Your task to perform on an android device: turn smart compose on in the gmail app Image 0: 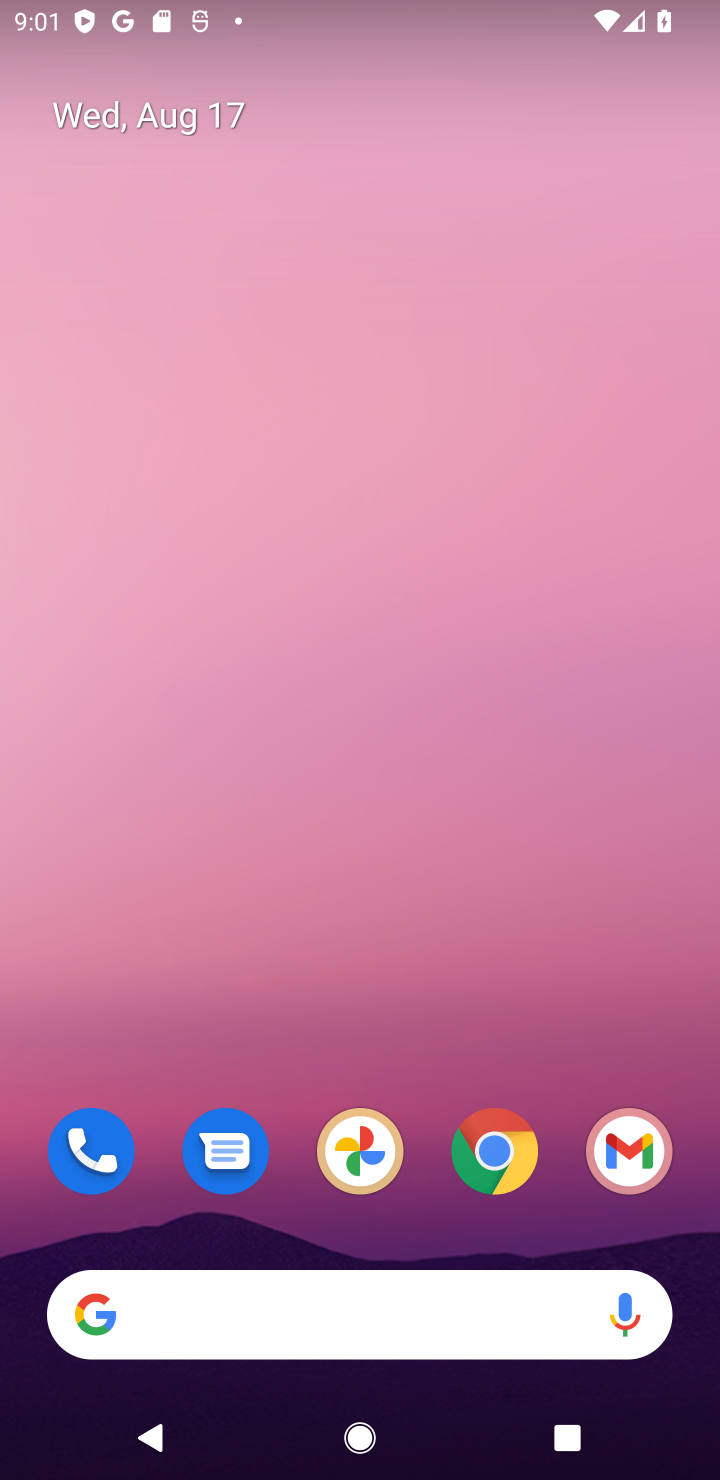
Step 0: drag from (368, 1037) to (416, 45)
Your task to perform on an android device: turn smart compose on in the gmail app Image 1: 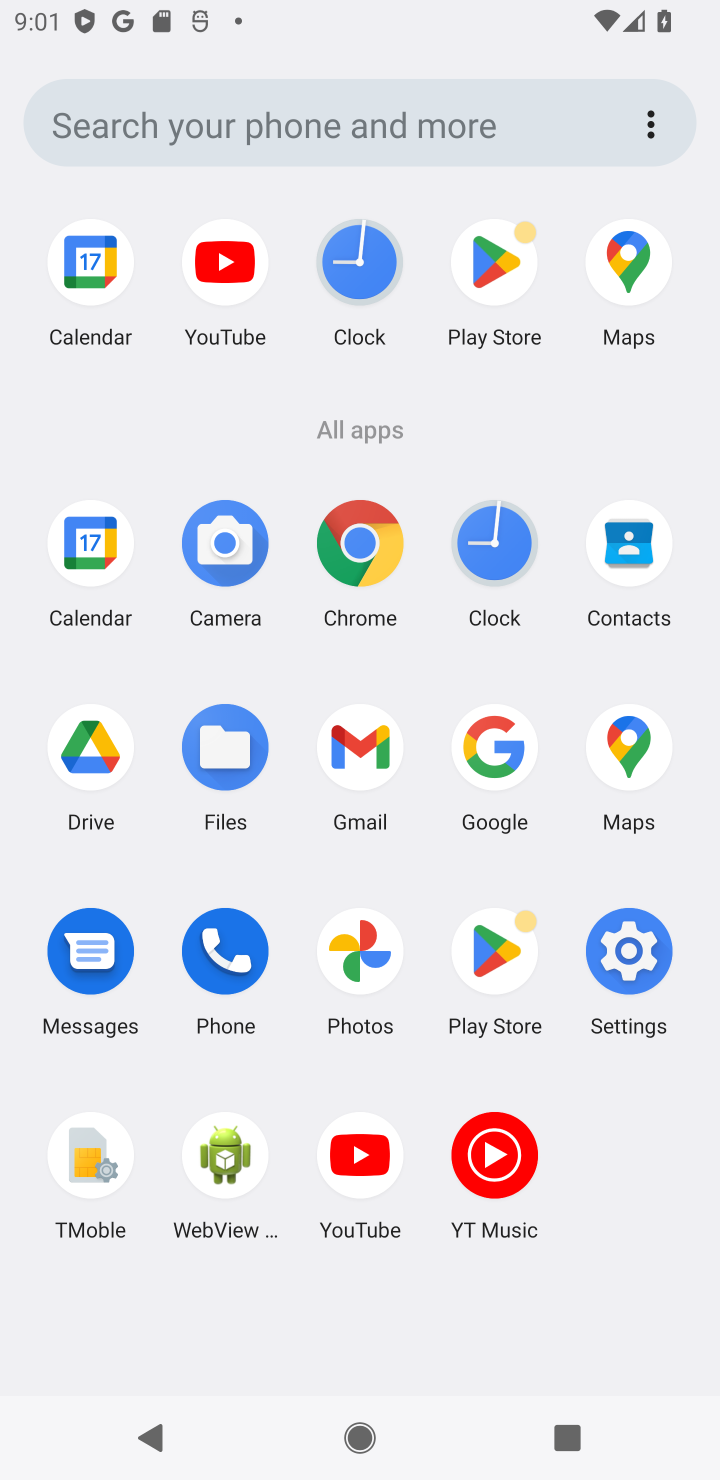
Step 1: click (352, 768)
Your task to perform on an android device: turn smart compose on in the gmail app Image 2: 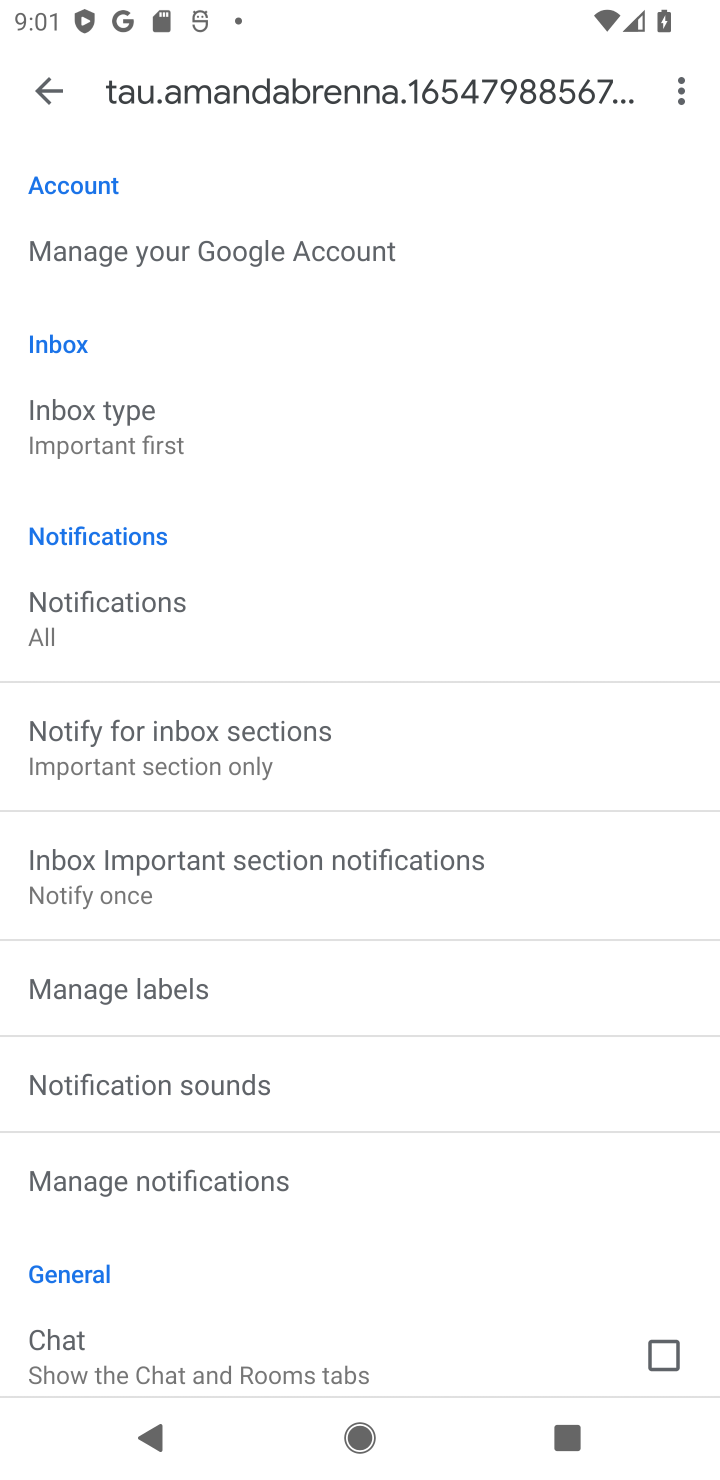
Step 2: drag from (301, 1003) to (351, 587)
Your task to perform on an android device: turn smart compose on in the gmail app Image 3: 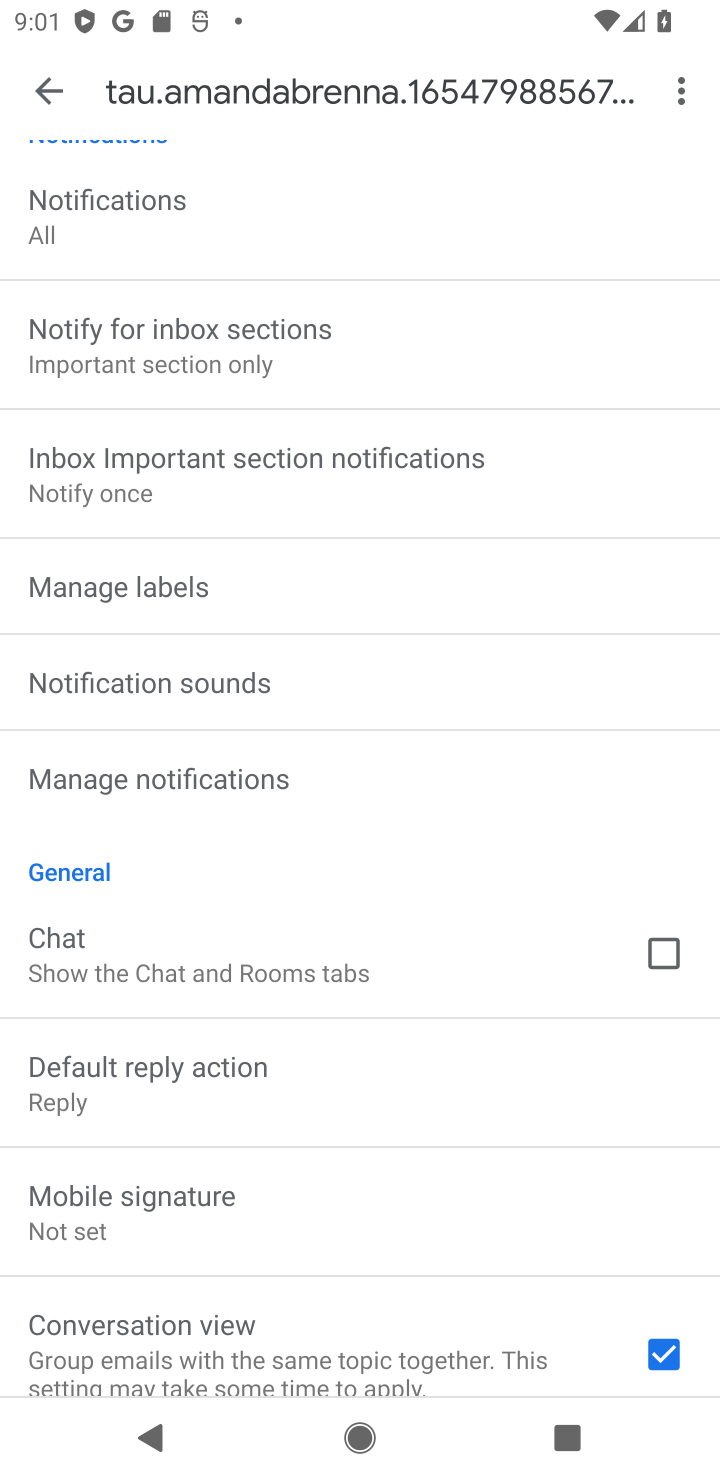
Step 3: drag from (306, 1127) to (352, 801)
Your task to perform on an android device: turn smart compose on in the gmail app Image 4: 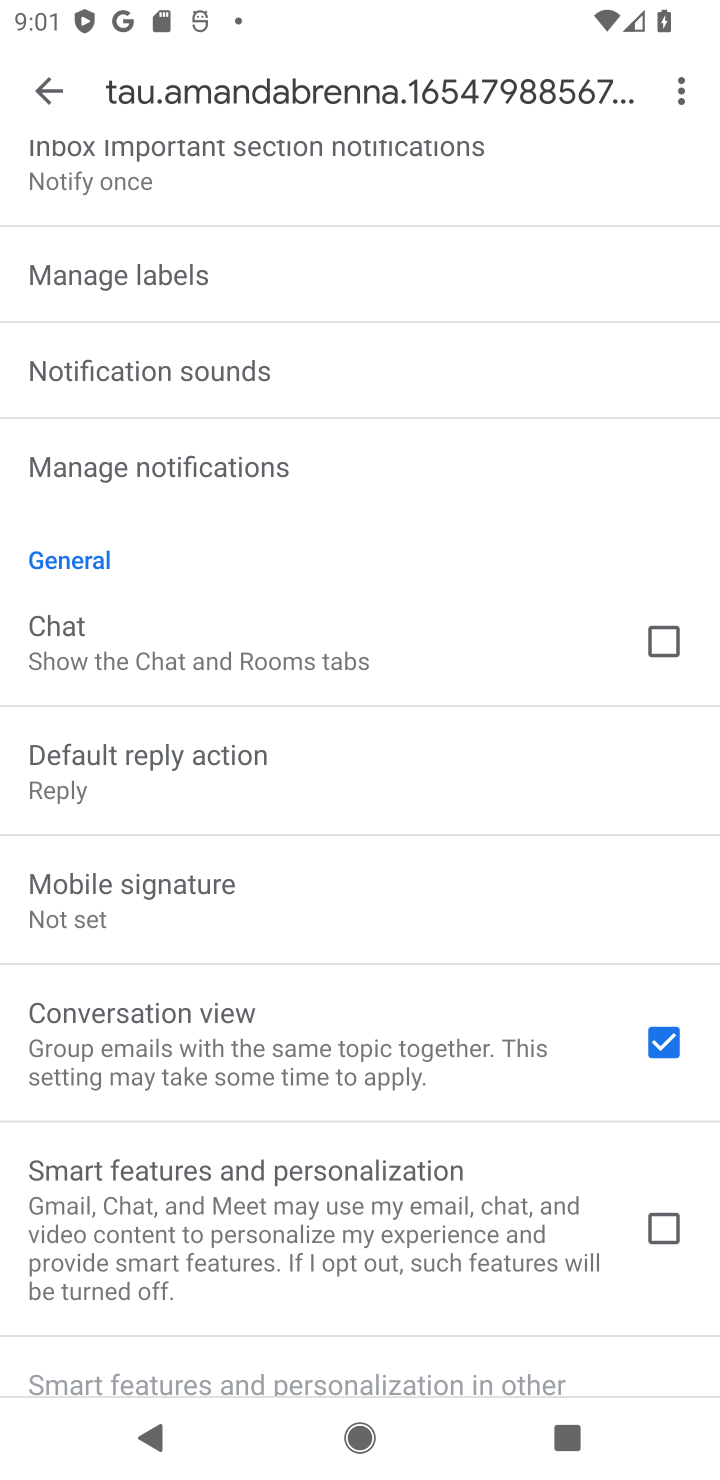
Step 4: click (190, 1350)
Your task to perform on an android device: turn smart compose on in the gmail app Image 5: 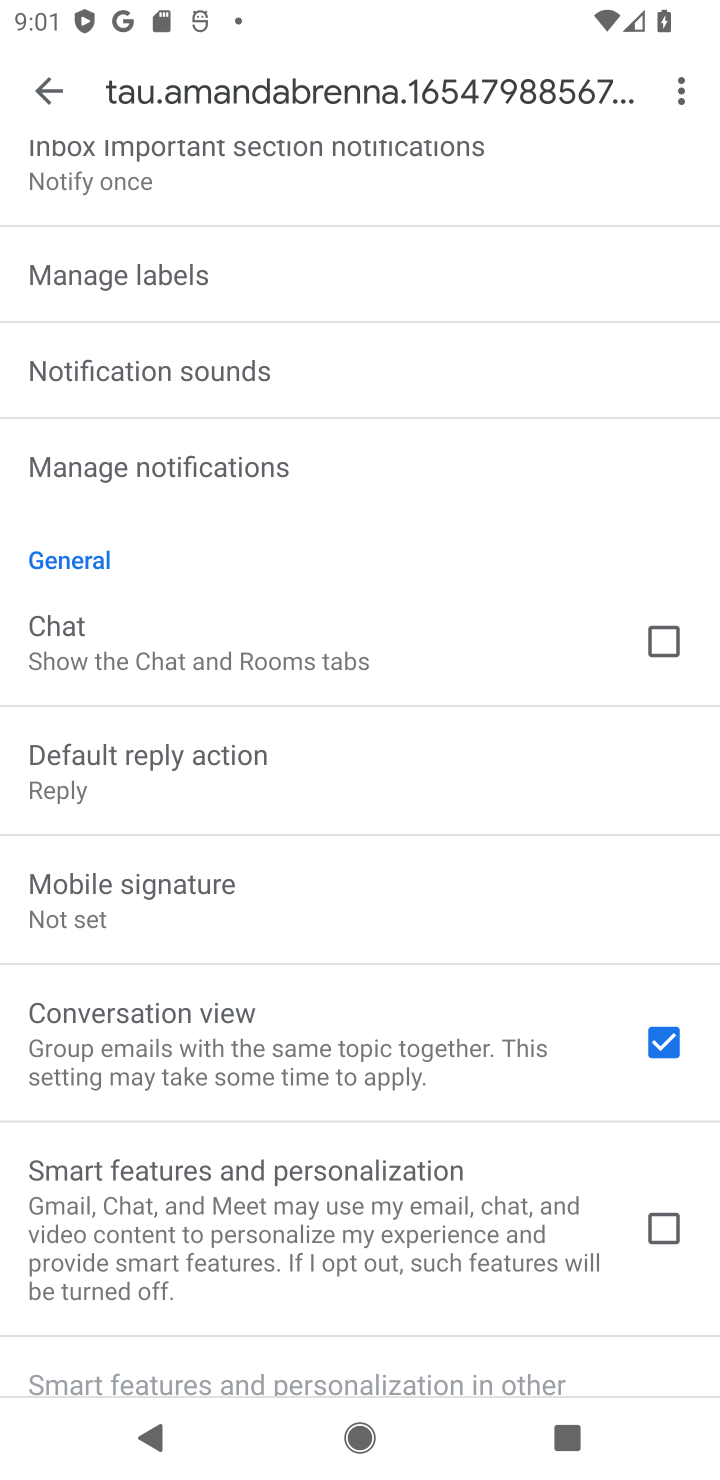
Step 5: drag from (326, 1297) to (364, 823)
Your task to perform on an android device: turn smart compose on in the gmail app Image 6: 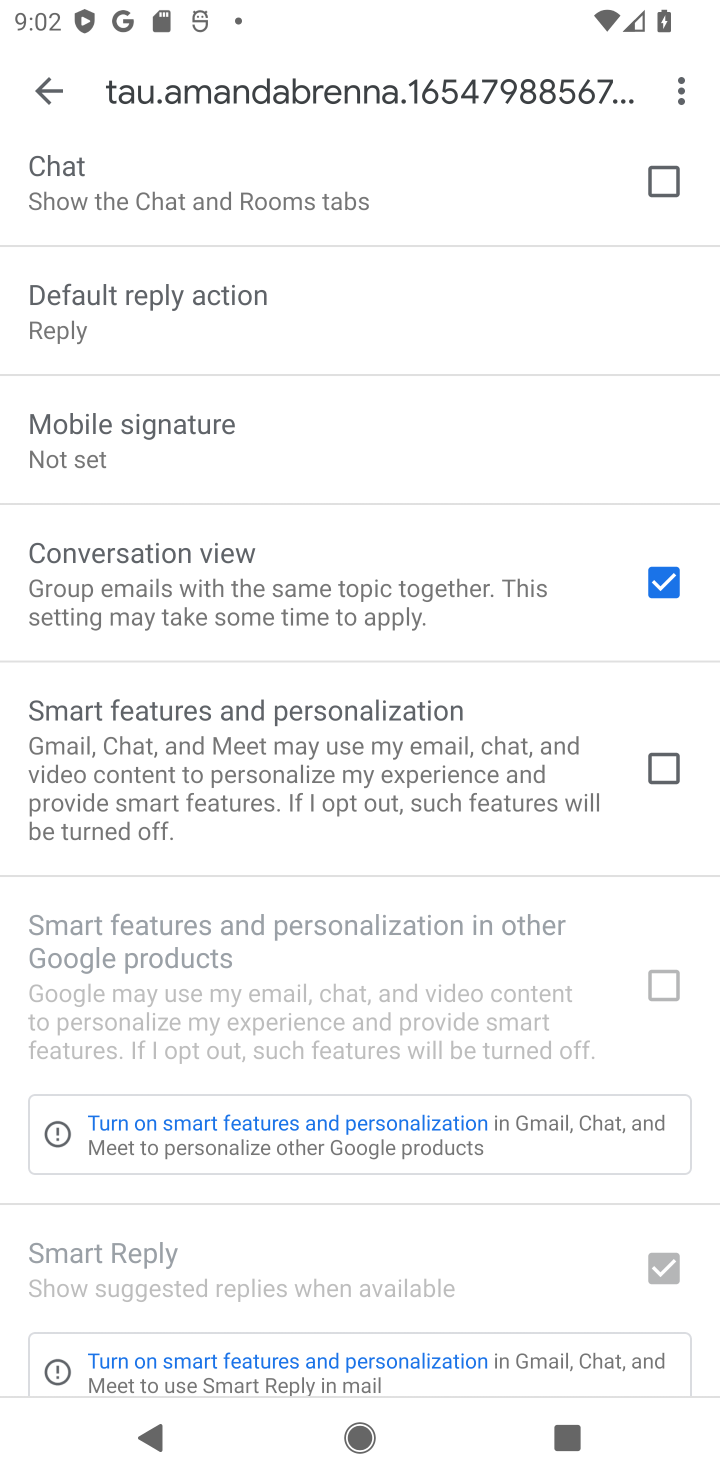
Step 6: click (490, 1269)
Your task to perform on an android device: turn smart compose on in the gmail app Image 7: 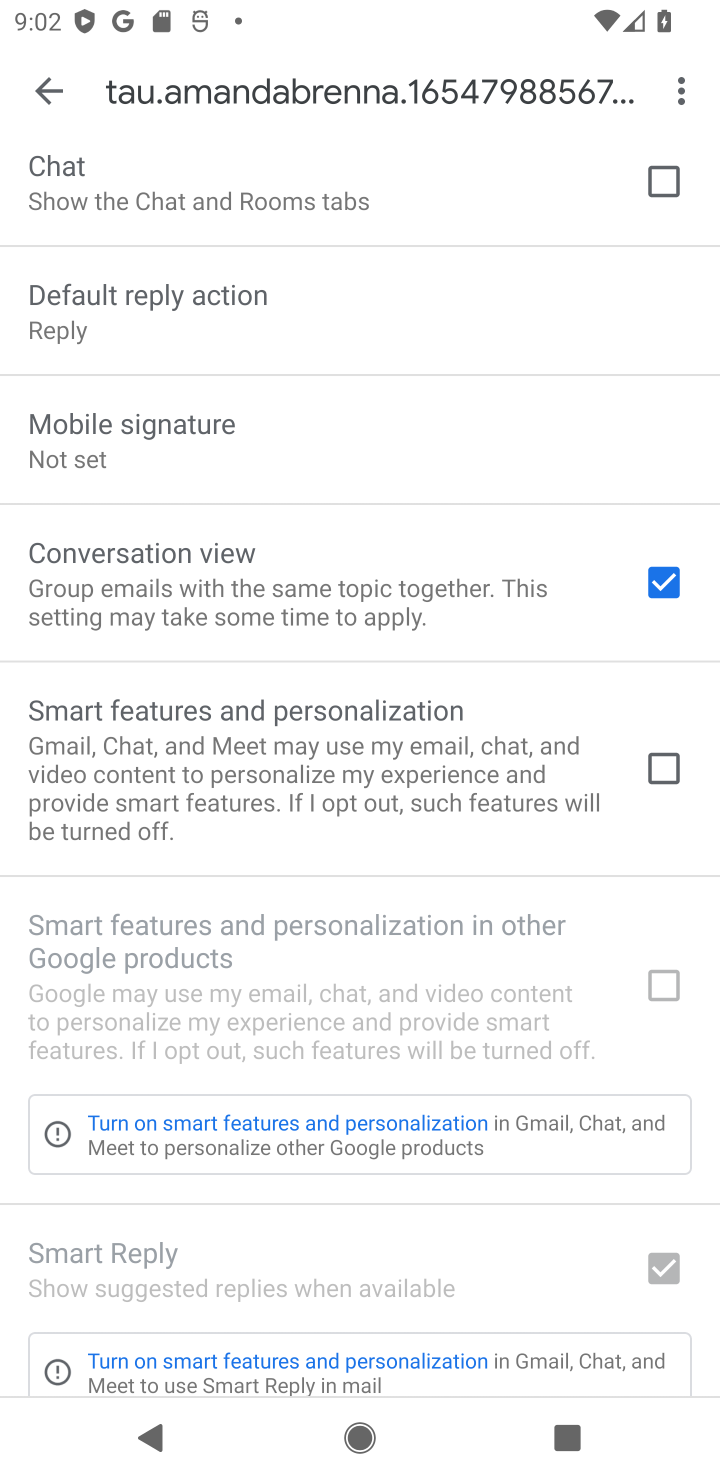
Step 7: task complete